Your task to perform on an android device: Go to network settings Image 0: 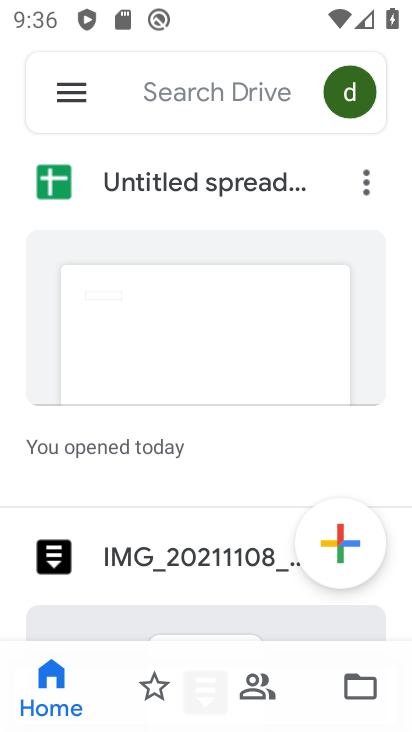
Step 0: press home button
Your task to perform on an android device: Go to network settings Image 1: 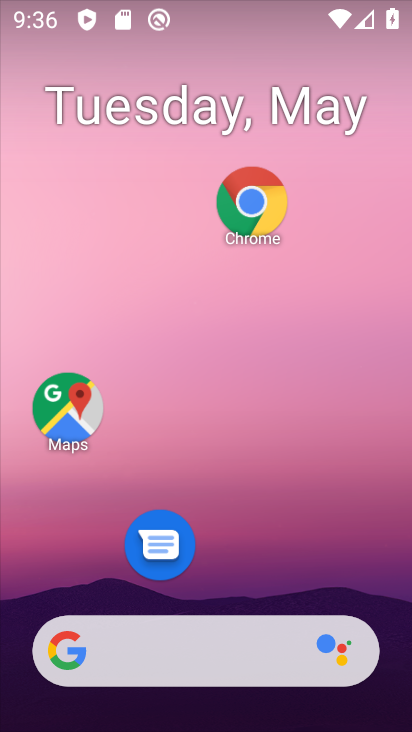
Step 1: drag from (283, 585) to (291, 218)
Your task to perform on an android device: Go to network settings Image 2: 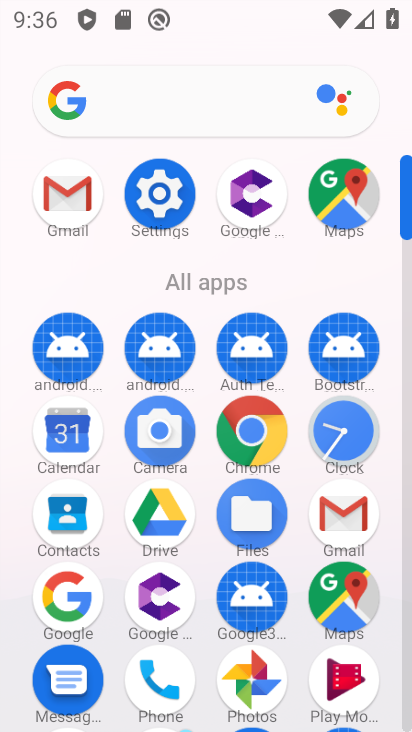
Step 2: click (150, 204)
Your task to perform on an android device: Go to network settings Image 3: 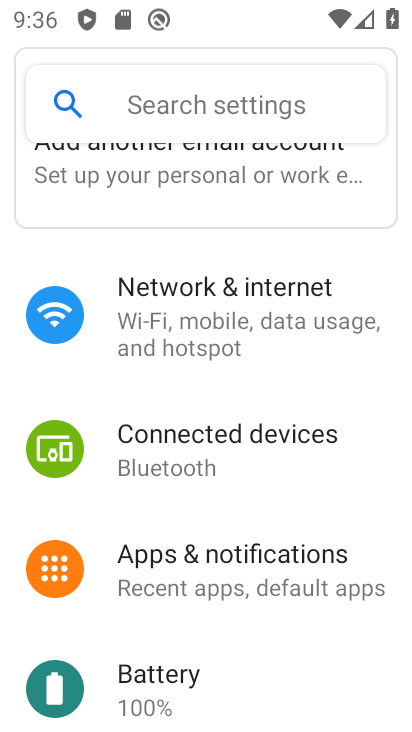
Step 3: click (179, 278)
Your task to perform on an android device: Go to network settings Image 4: 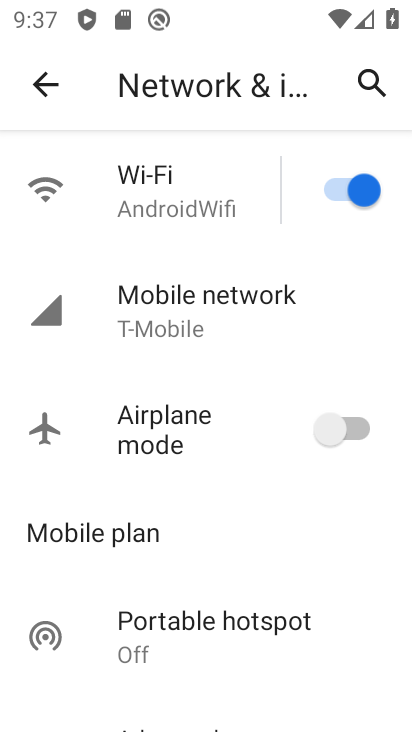
Step 4: task complete